Your task to perform on an android device: check the backup settings in the google photos Image 0: 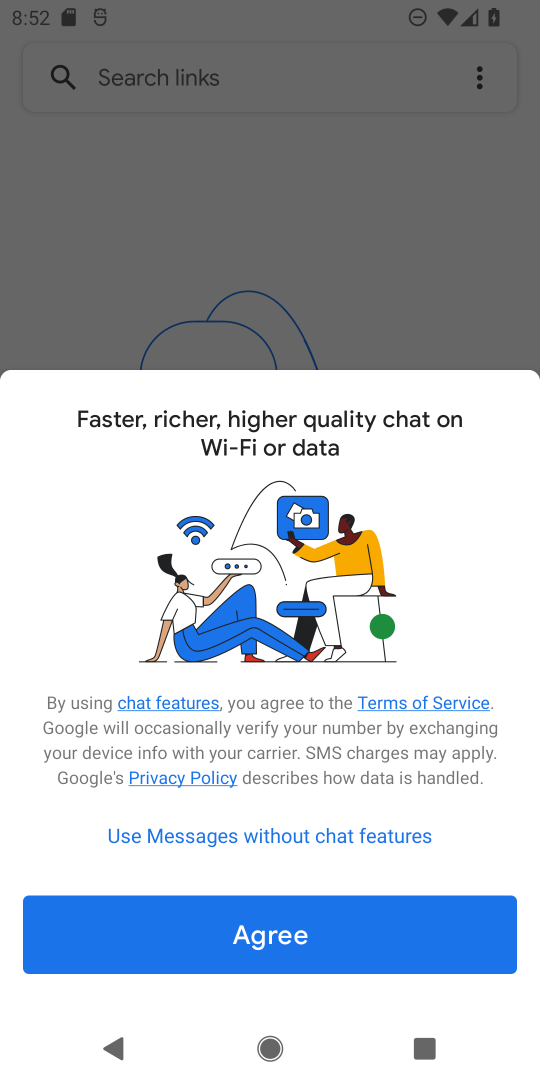
Step 0: press home button
Your task to perform on an android device: check the backup settings in the google photos Image 1: 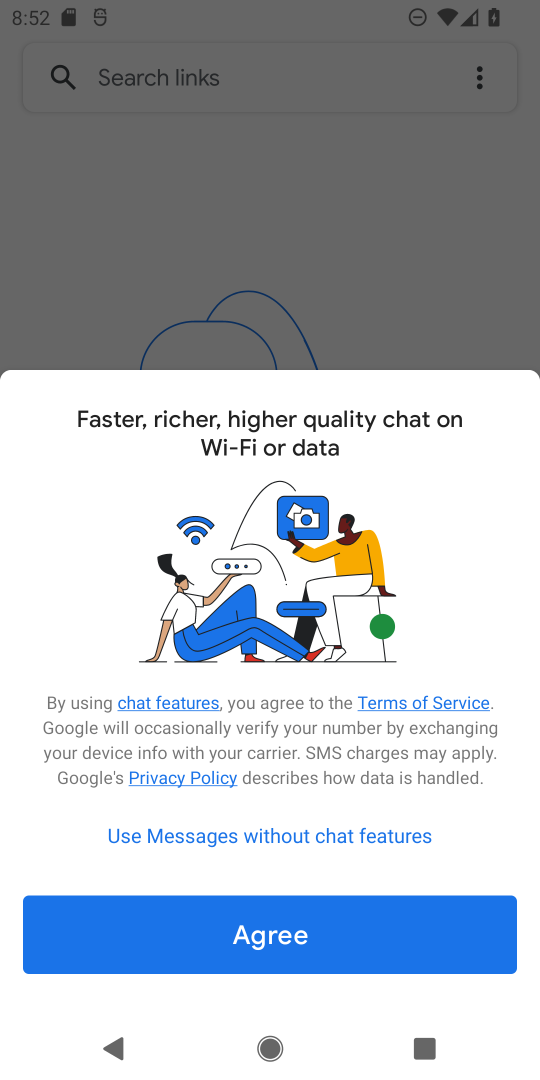
Step 1: press home button
Your task to perform on an android device: check the backup settings in the google photos Image 2: 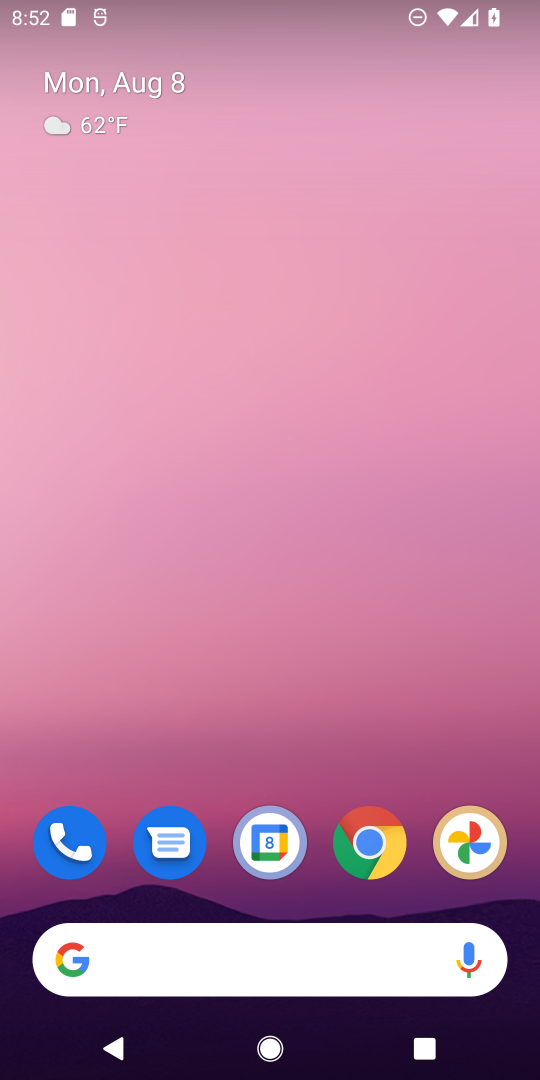
Step 2: drag from (274, 776) to (348, 2)
Your task to perform on an android device: check the backup settings in the google photos Image 3: 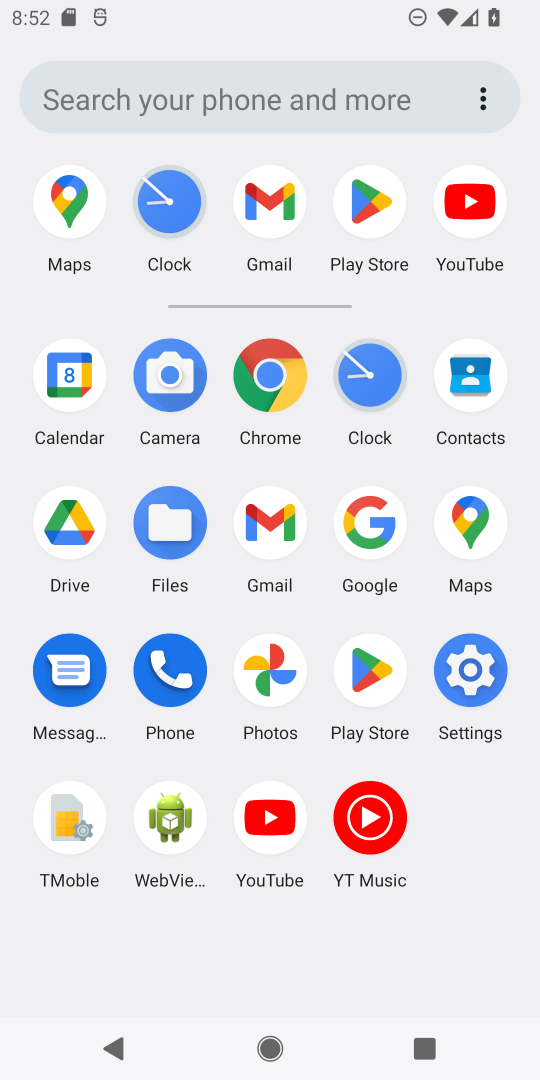
Step 3: click (274, 674)
Your task to perform on an android device: check the backup settings in the google photos Image 4: 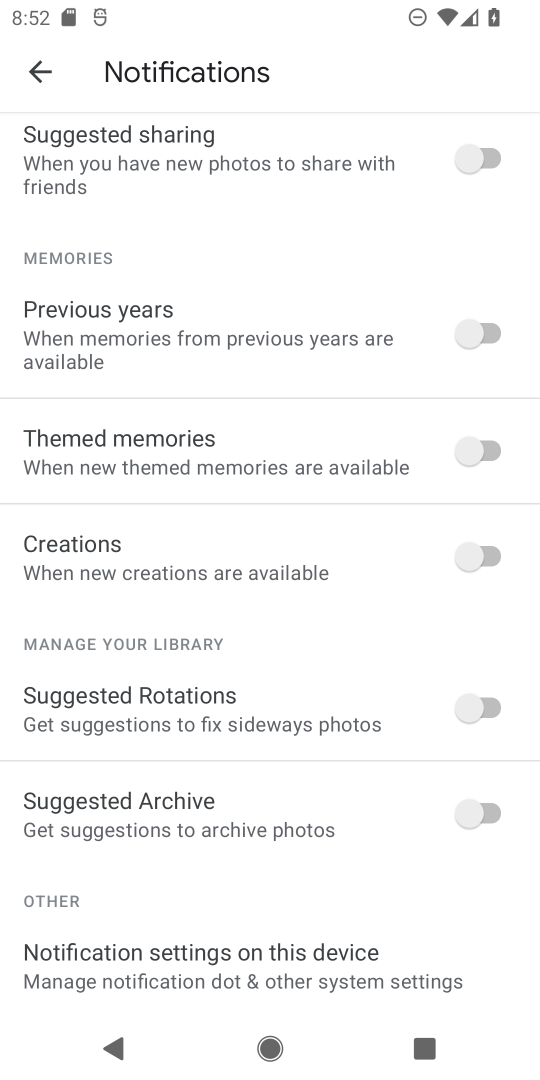
Step 4: click (38, 68)
Your task to perform on an android device: check the backup settings in the google photos Image 5: 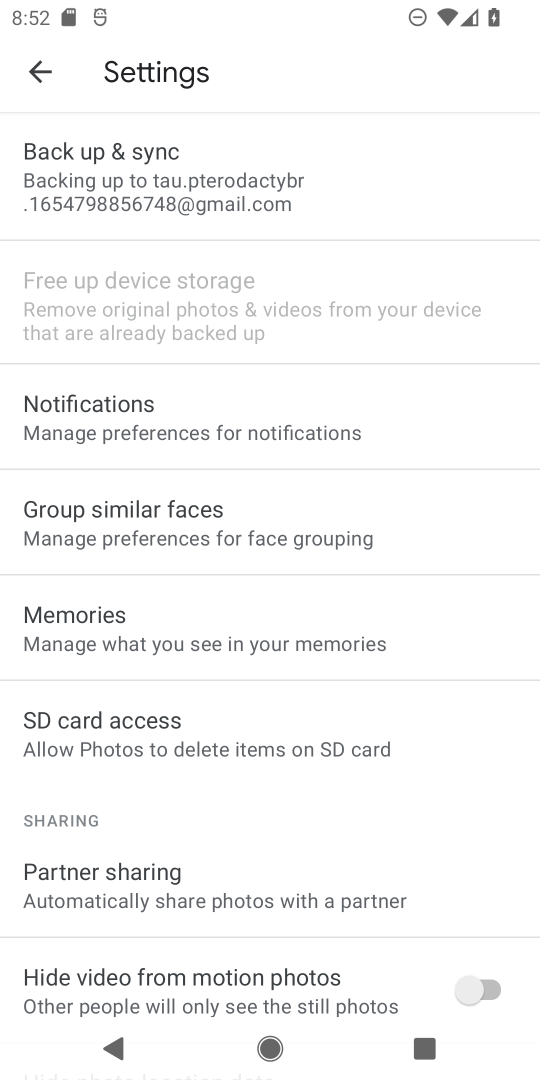
Step 5: click (96, 162)
Your task to perform on an android device: check the backup settings in the google photos Image 6: 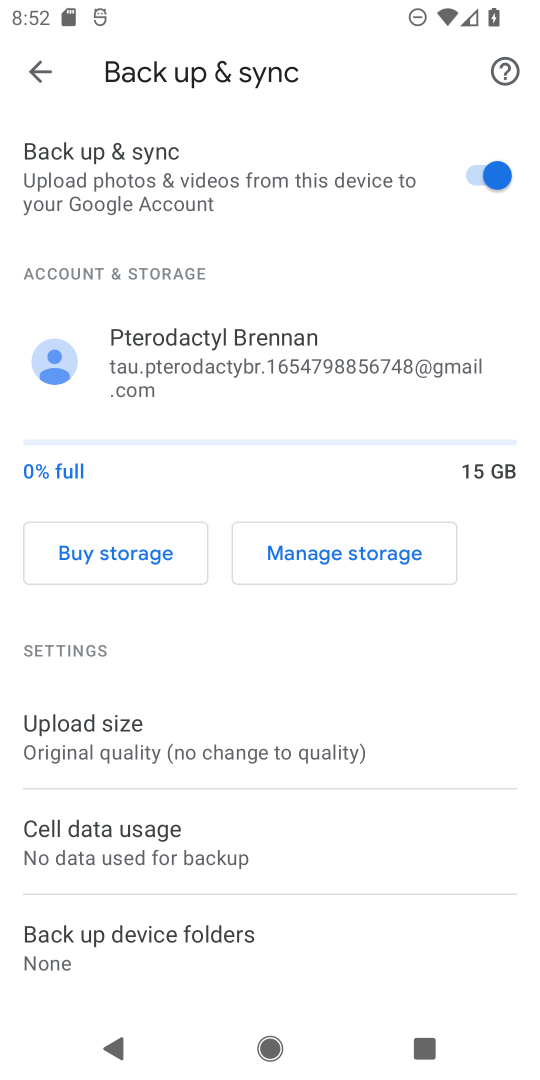
Step 6: task complete